Your task to perform on an android device: show emergency info Image 0: 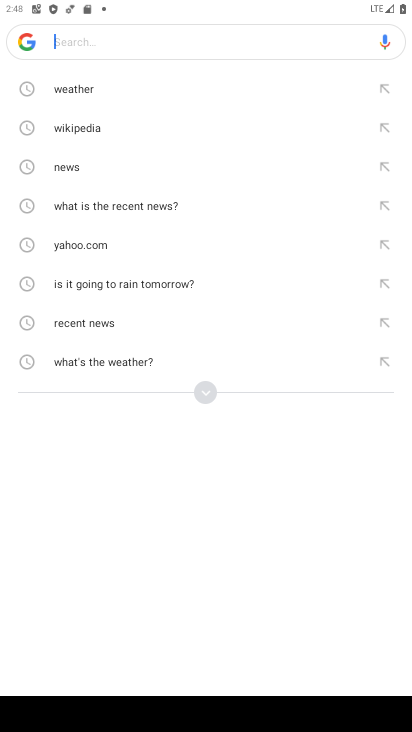
Step 0: press home button
Your task to perform on an android device: show emergency info Image 1: 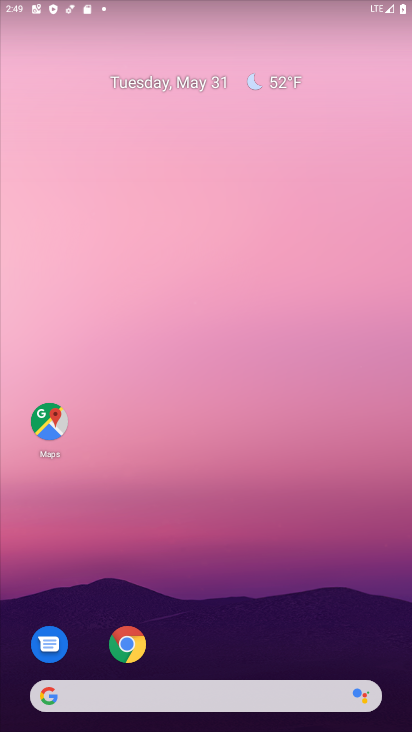
Step 1: drag from (271, 575) to (262, 81)
Your task to perform on an android device: show emergency info Image 2: 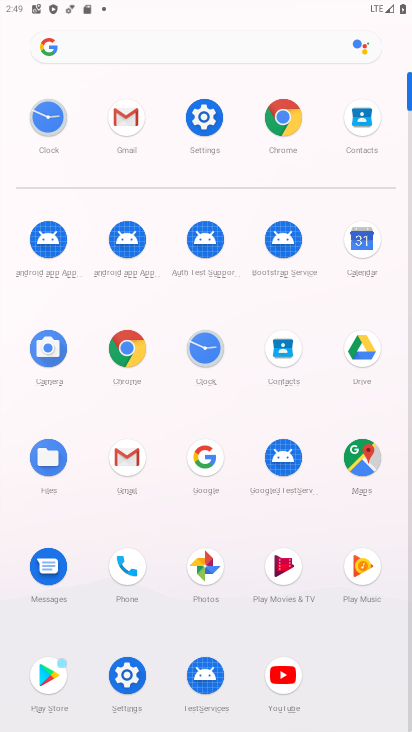
Step 2: click (213, 122)
Your task to perform on an android device: show emergency info Image 3: 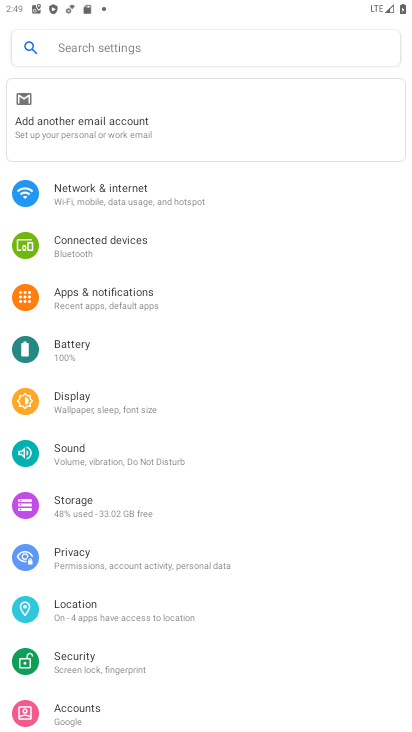
Step 3: drag from (361, 692) to (341, 225)
Your task to perform on an android device: show emergency info Image 4: 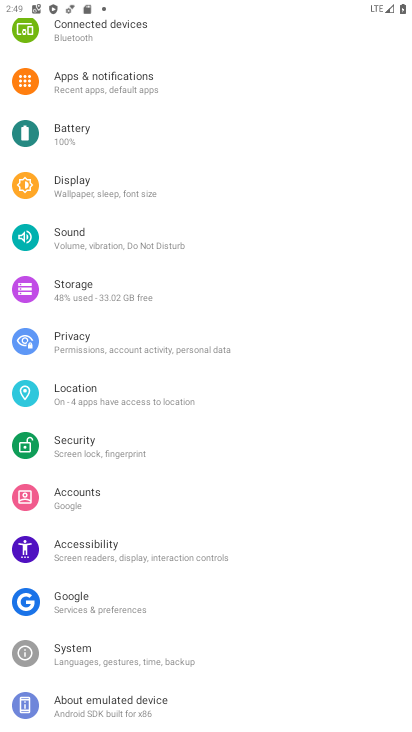
Step 4: click (108, 707)
Your task to perform on an android device: show emergency info Image 5: 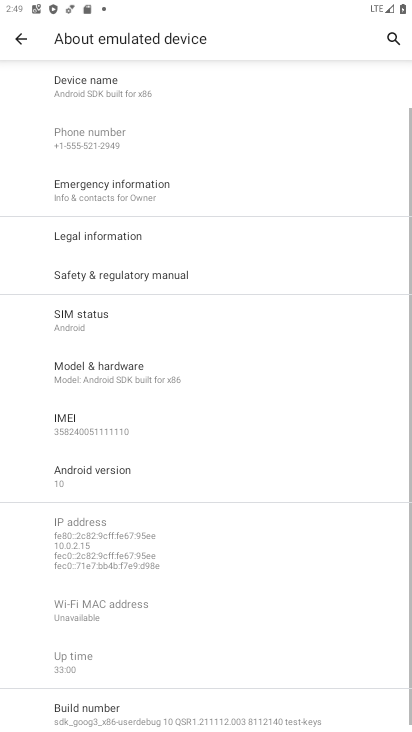
Step 5: click (160, 200)
Your task to perform on an android device: show emergency info Image 6: 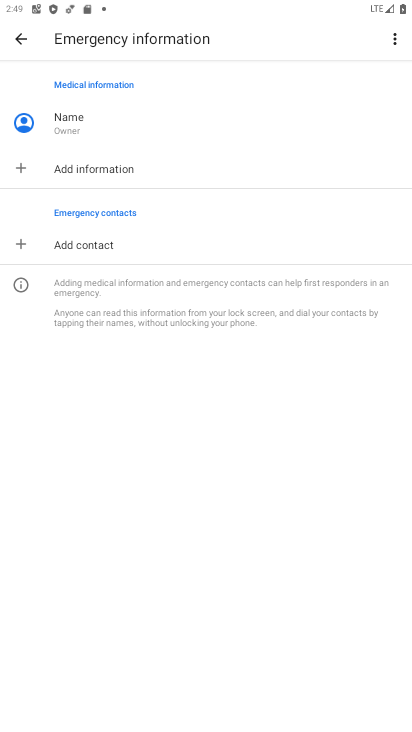
Step 6: click (20, 281)
Your task to perform on an android device: show emergency info Image 7: 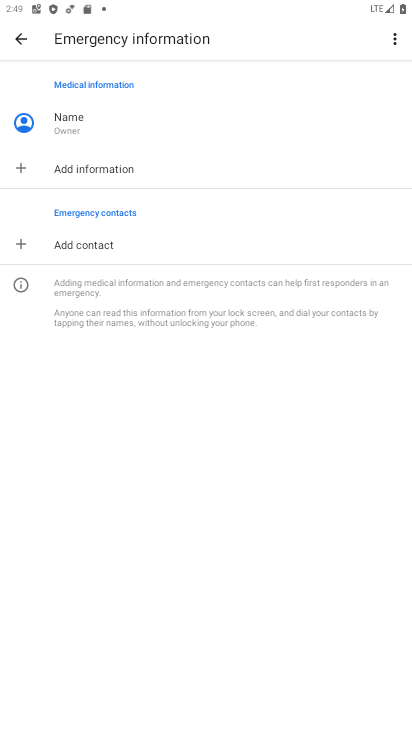
Step 7: click (384, 29)
Your task to perform on an android device: show emergency info Image 8: 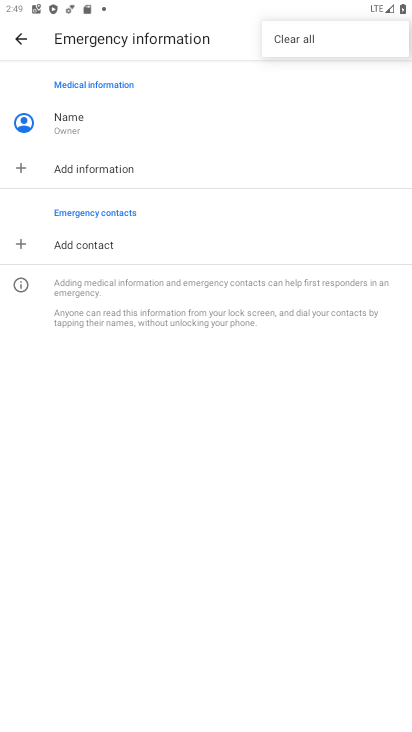
Step 8: click (393, 31)
Your task to perform on an android device: show emergency info Image 9: 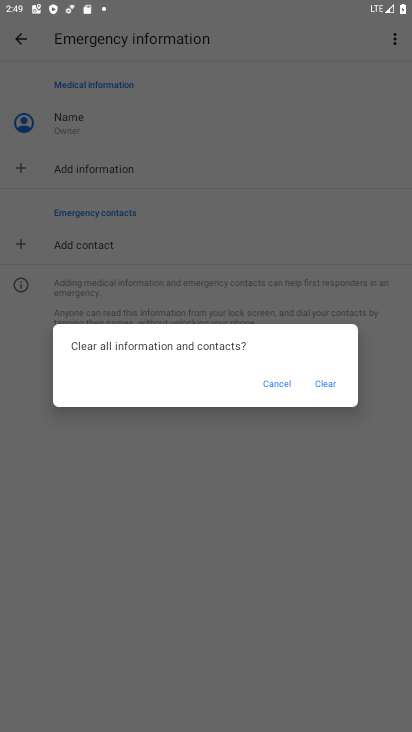
Step 9: click (281, 491)
Your task to perform on an android device: show emergency info Image 10: 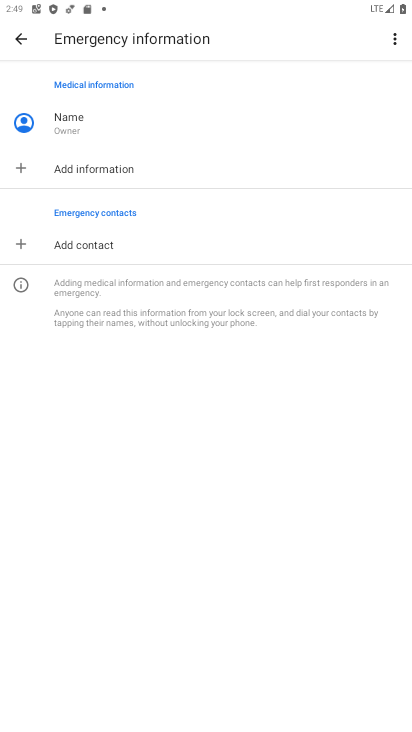
Step 10: task complete